Your task to perform on an android device: move an email to a new category in the gmail app Image 0: 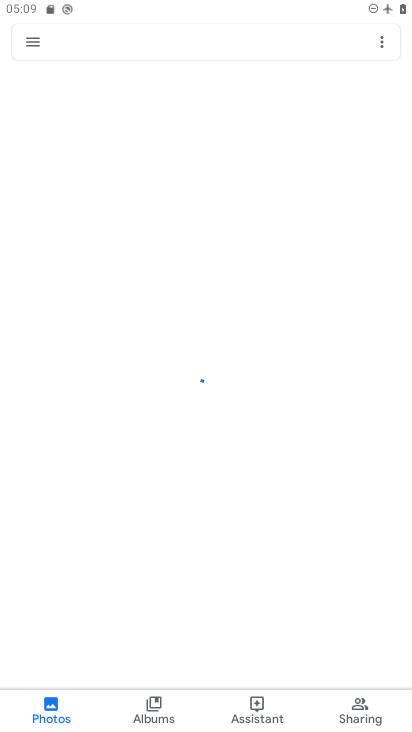
Step 0: press home button
Your task to perform on an android device: move an email to a new category in the gmail app Image 1: 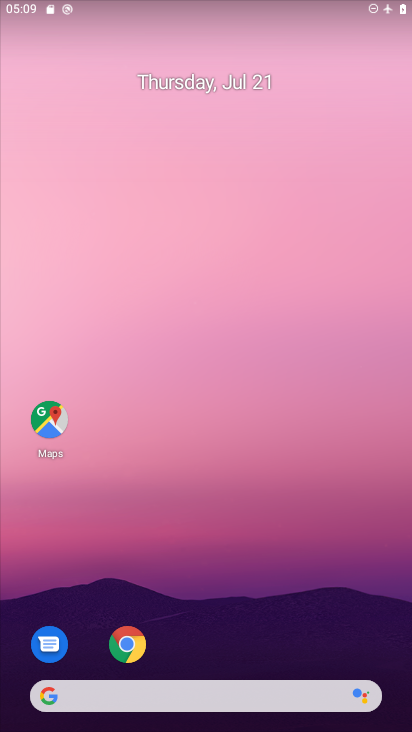
Step 1: drag from (260, 79) to (252, 10)
Your task to perform on an android device: move an email to a new category in the gmail app Image 2: 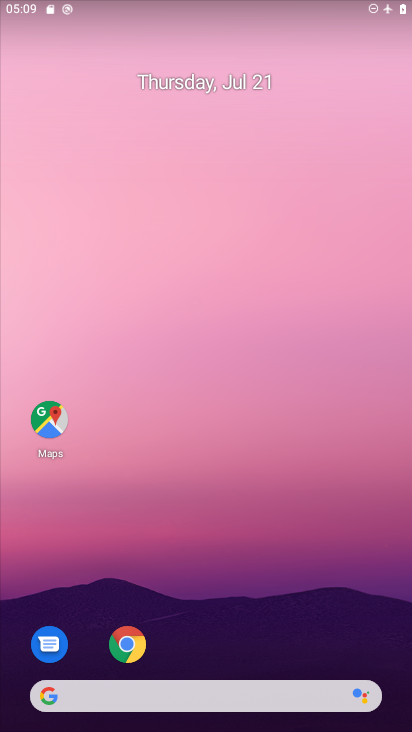
Step 2: drag from (203, 523) to (227, 22)
Your task to perform on an android device: move an email to a new category in the gmail app Image 3: 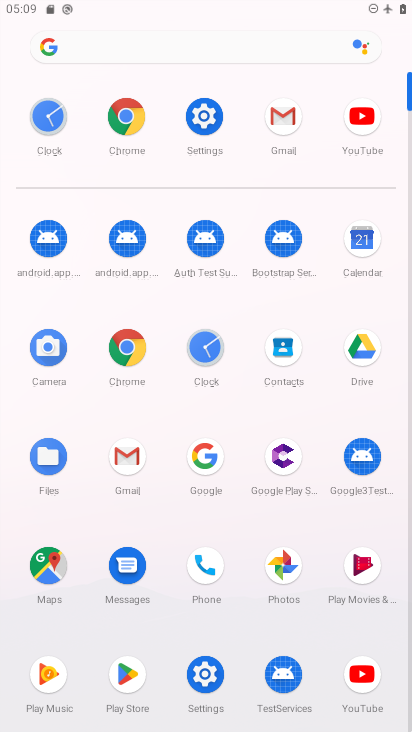
Step 3: click (287, 128)
Your task to perform on an android device: move an email to a new category in the gmail app Image 4: 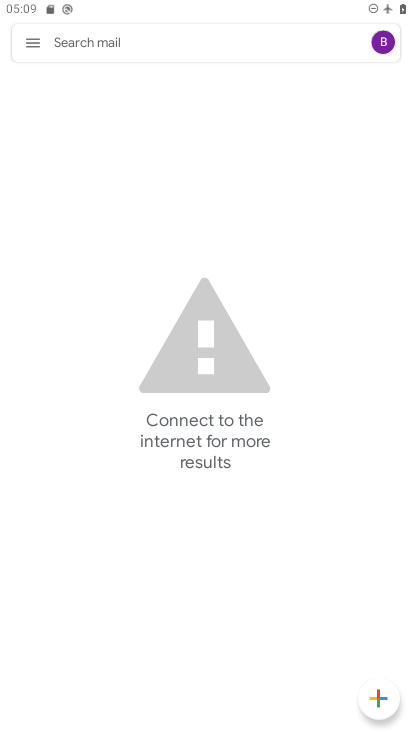
Step 4: click (32, 46)
Your task to perform on an android device: move an email to a new category in the gmail app Image 5: 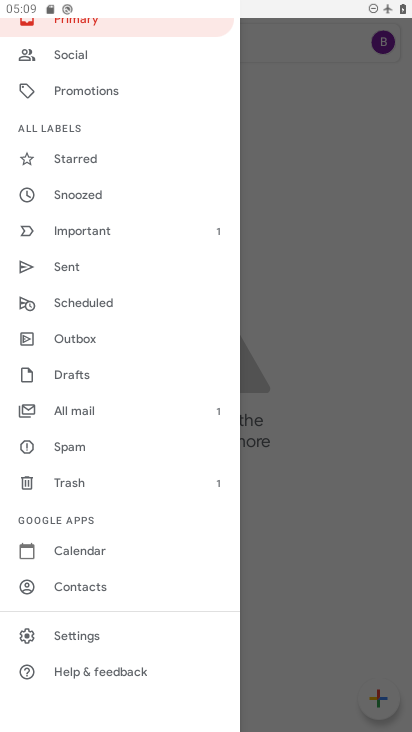
Step 5: press back button
Your task to perform on an android device: move an email to a new category in the gmail app Image 6: 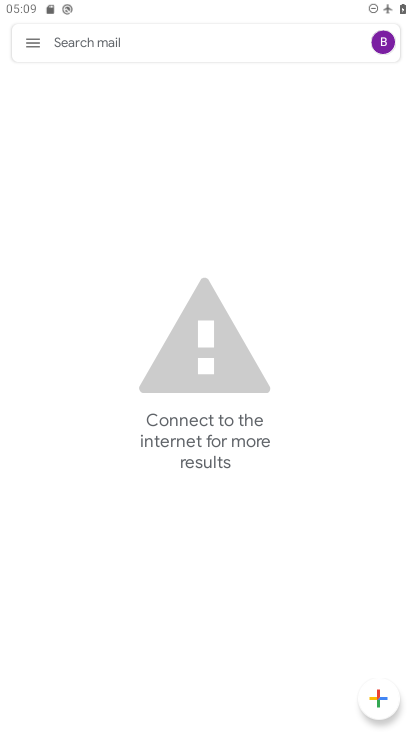
Step 6: press back button
Your task to perform on an android device: move an email to a new category in the gmail app Image 7: 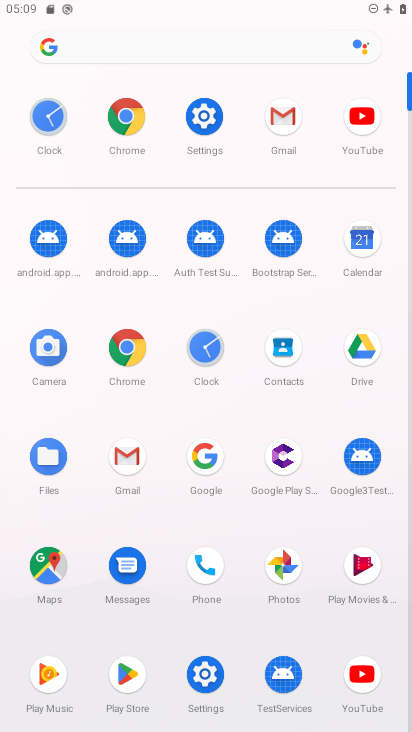
Step 7: click (188, 115)
Your task to perform on an android device: move an email to a new category in the gmail app Image 8: 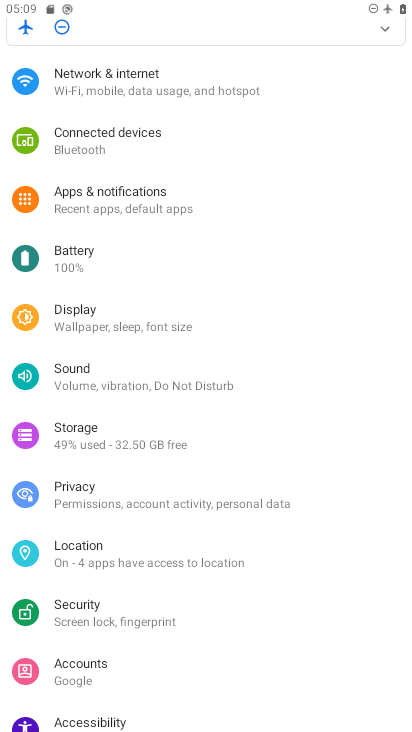
Step 8: click (392, 30)
Your task to perform on an android device: move an email to a new category in the gmail app Image 9: 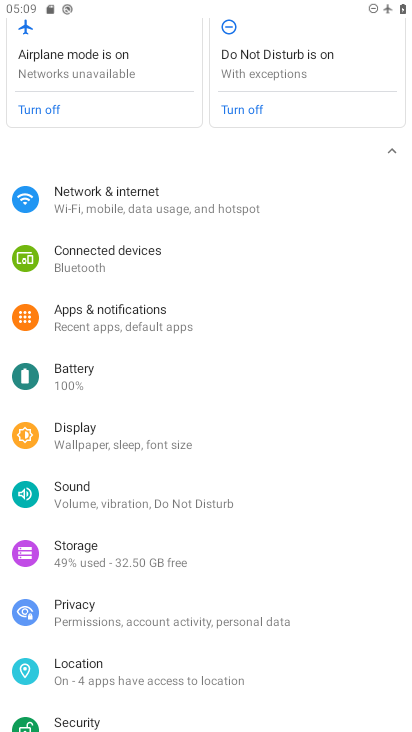
Step 9: click (56, 103)
Your task to perform on an android device: move an email to a new category in the gmail app Image 10: 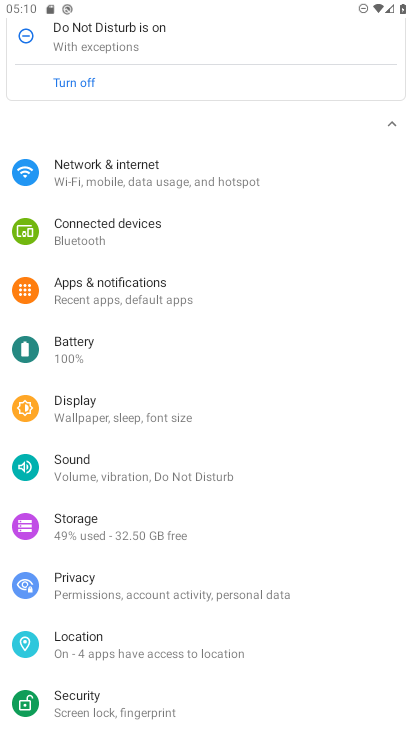
Step 10: press back button
Your task to perform on an android device: move an email to a new category in the gmail app Image 11: 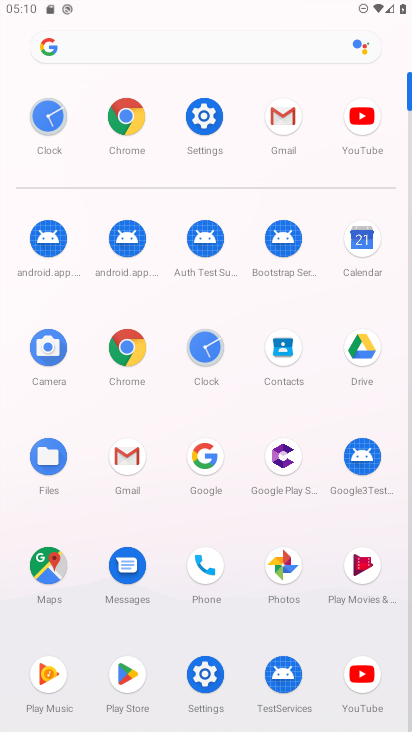
Step 11: click (283, 121)
Your task to perform on an android device: move an email to a new category in the gmail app Image 12: 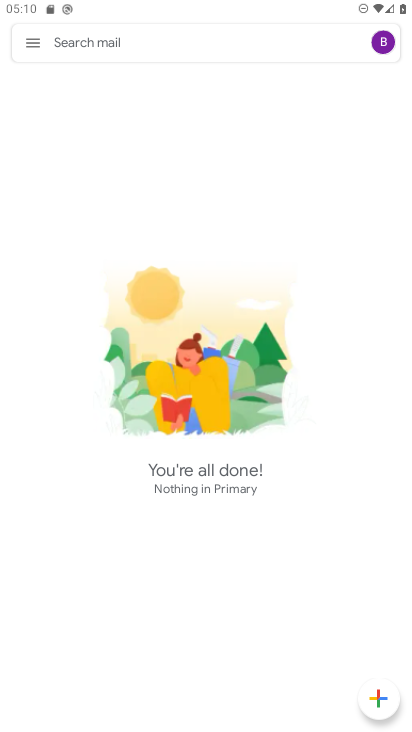
Step 12: click (30, 33)
Your task to perform on an android device: move an email to a new category in the gmail app Image 13: 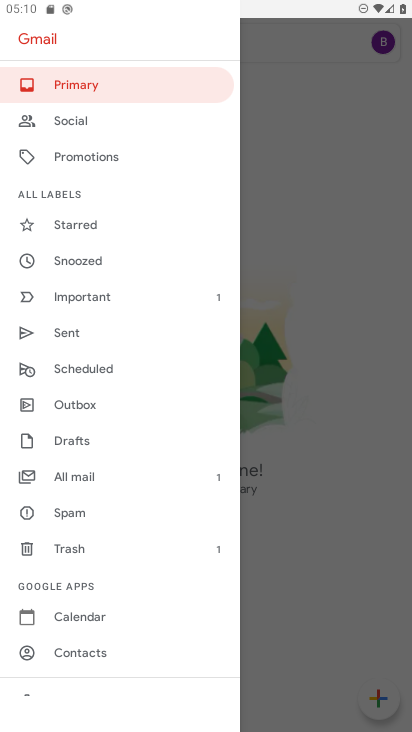
Step 13: click (61, 472)
Your task to perform on an android device: move an email to a new category in the gmail app Image 14: 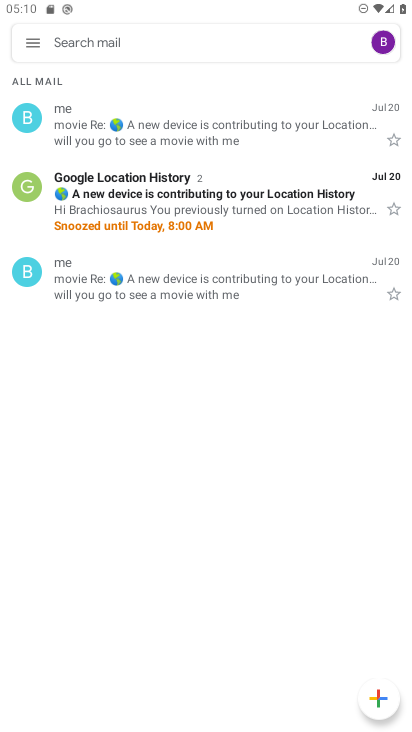
Step 14: click (175, 104)
Your task to perform on an android device: move an email to a new category in the gmail app Image 15: 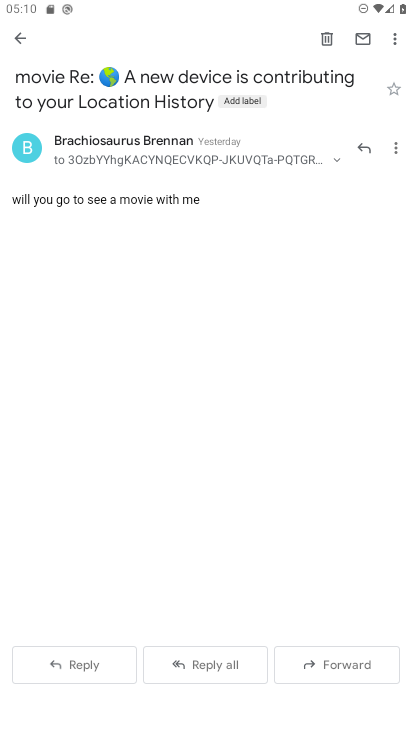
Step 15: click (390, 41)
Your task to perform on an android device: move an email to a new category in the gmail app Image 16: 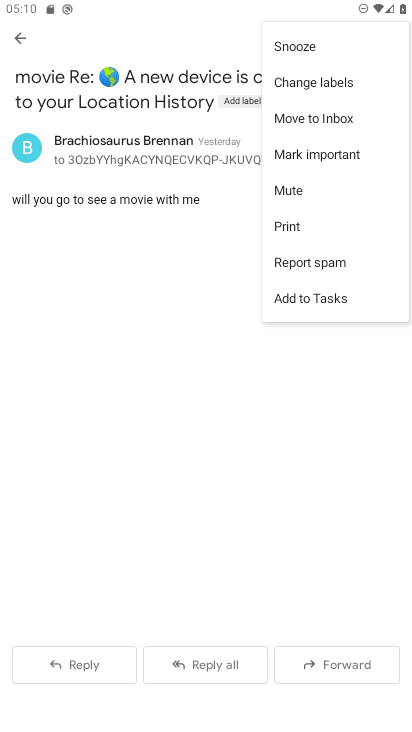
Step 16: click (319, 114)
Your task to perform on an android device: move an email to a new category in the gmail app Image 17: 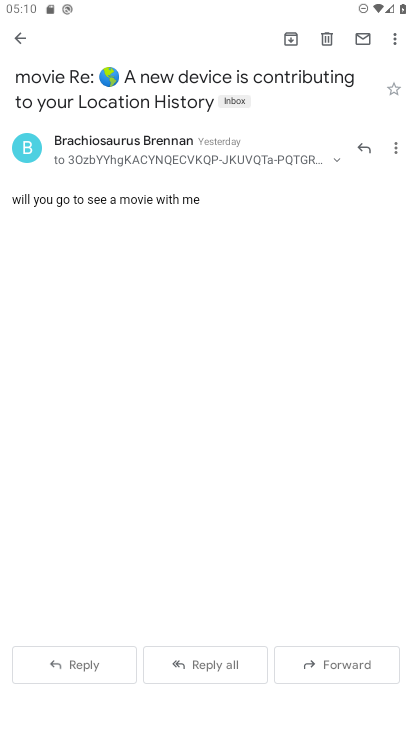
Step 17: task complete